Your task to perform on an android device: Go to settings Image 0: 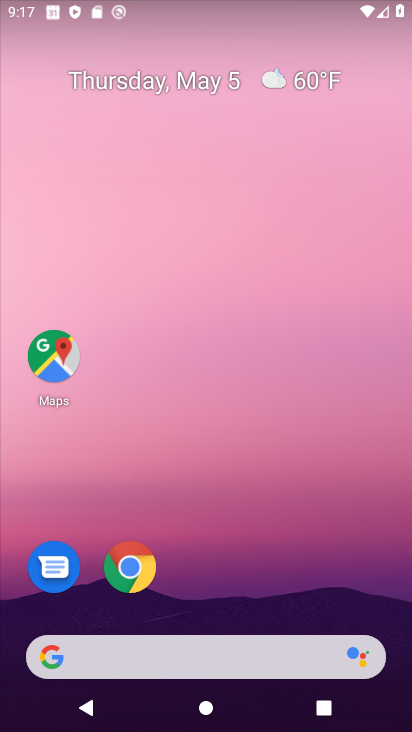
Step 0: drag from (229, 700) to (229, 149)
Your task to perform on an android device: Go to settings Image 1: 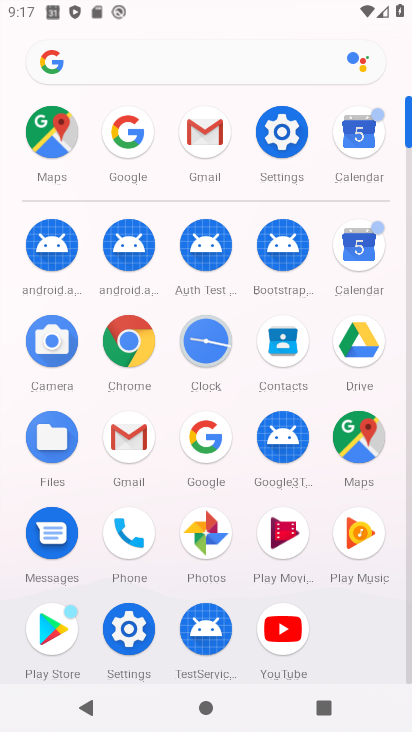
Step 1: click (282, 128)
Your task to perform on an android device: Go to settings Image 2: 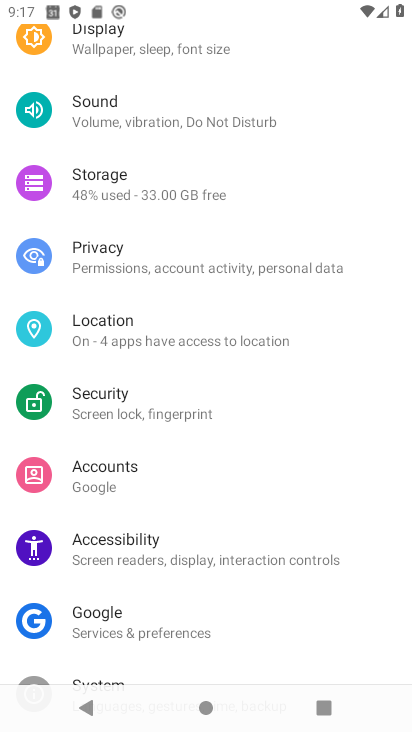
Step 2: task complete